Your task to perform on an android device: Find coffee shops on Maps Image 0: 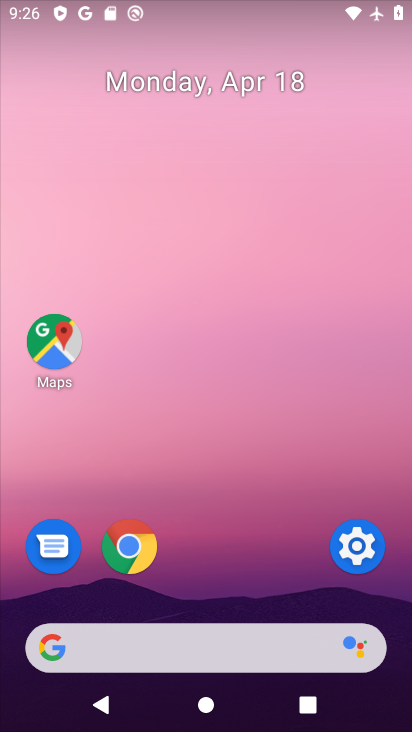
Step 0: click (59, 350)
Your task to perform on an android device: Find coffee shops on Maps Image 1: 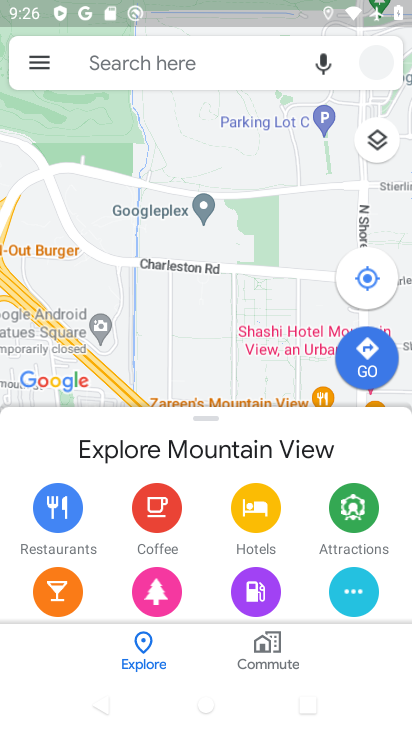
Step 1: click (146, 61)
Your task to perform on an android device: Find coffee shops on Maps Image 2: 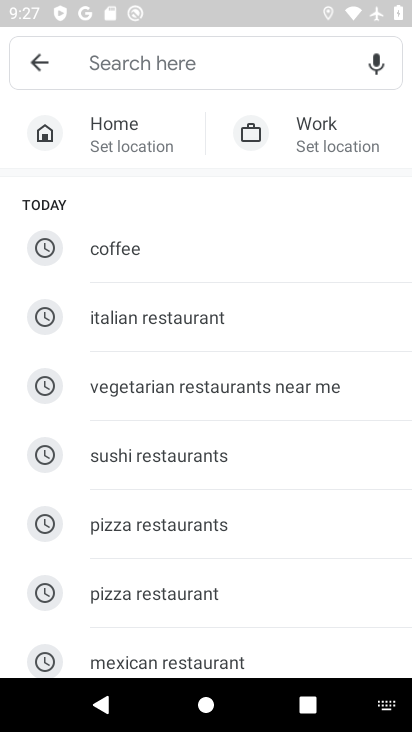
Step 2: type "Coffee shop"
Your task to perform on an android device: Find coffee shops on Maps Image 3: 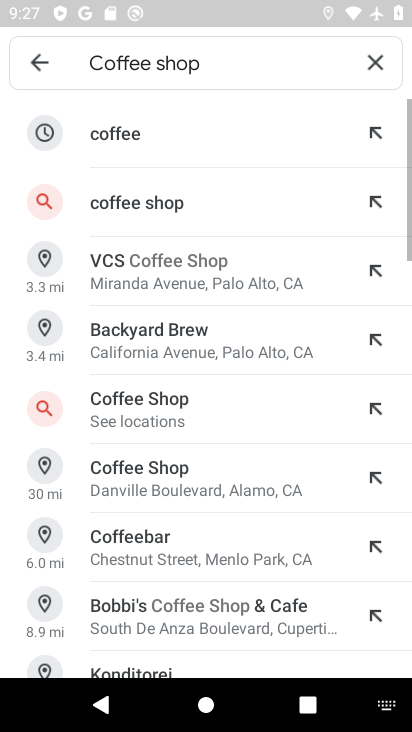
Step 3: click (154, 210)
Your task to perform on an android device: Find coffee shops on Maps Image 4: 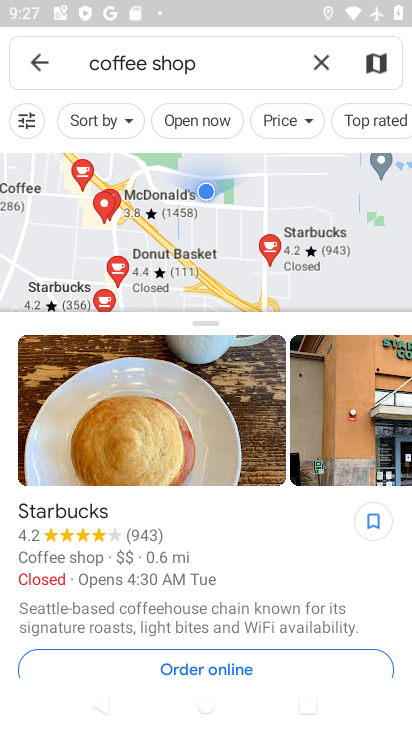
Step 4: task complete